Your task to perform on an android device: toggle javascript in the chrome app Image 0: 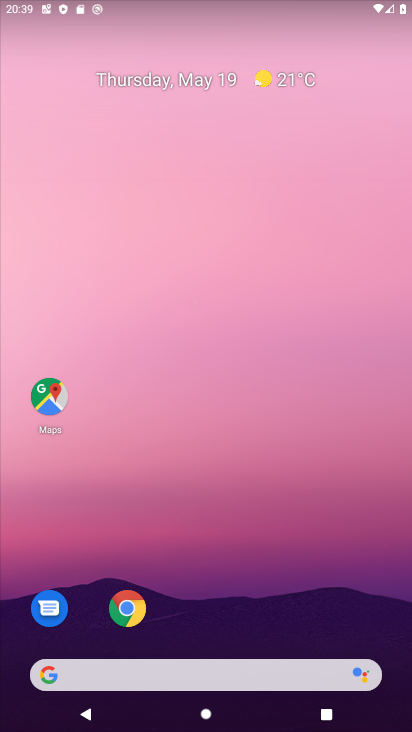
Step 0: click (127, 607)
Your task to perform on an android device: toggle javascript in the chrome app Image 1: 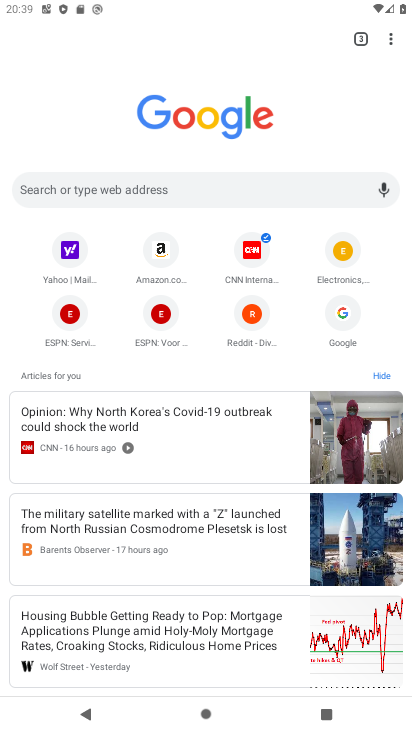
Step 1: click (390, 32)
Your task to perform on an android device: toggle javascript in the chrome app Image 2: 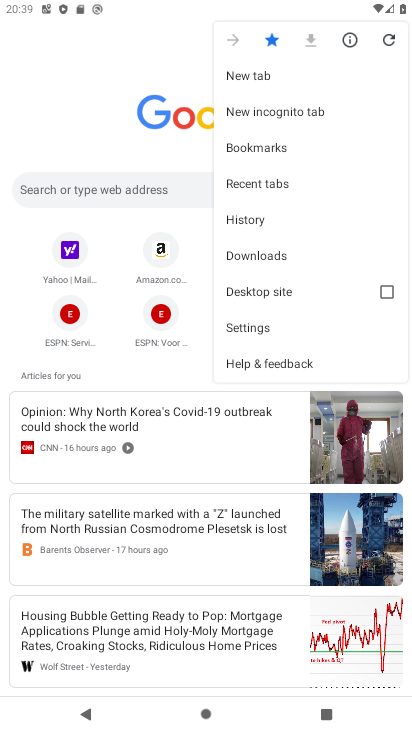
Step 2: click (241, 322)
Your task to perform on an android device: toggle javascript in the chrome app Image 3: 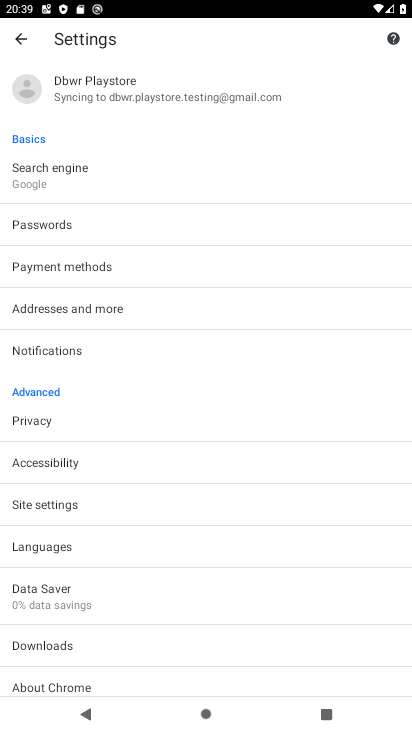
Step 3: click (28, 496)
Your task to perform on an android device: toggle javascript in the chrome app Image 4: 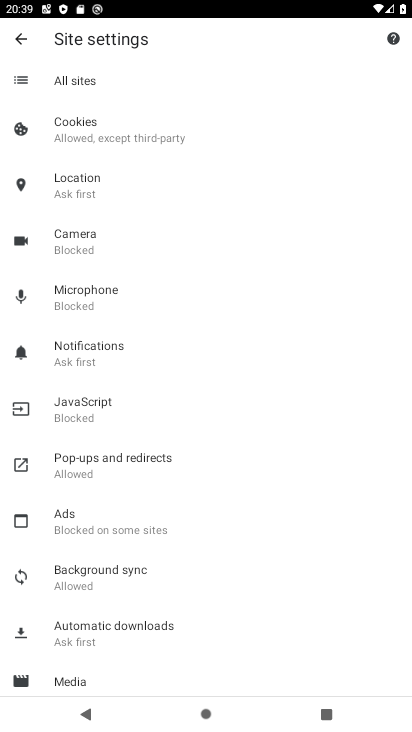
Step 4: click (81, 400)
Your task to perform on an android device: toggle javascript in the chrome app Image 5: 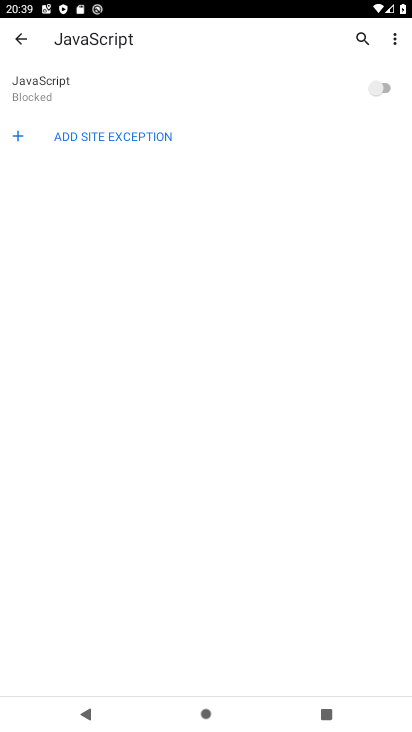
Step 5: click (381, 81)
Your task to perform on an android device: toggle javascript in the chrome app Image 6: 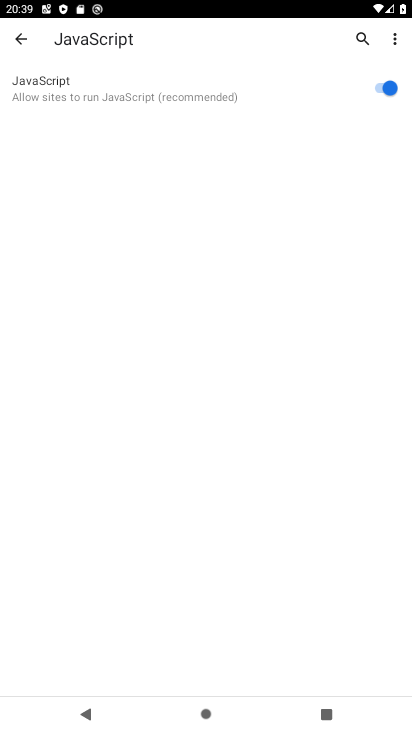
Step 6: task complete